Your task to perform on an android device: toggle notification dots Image 0: 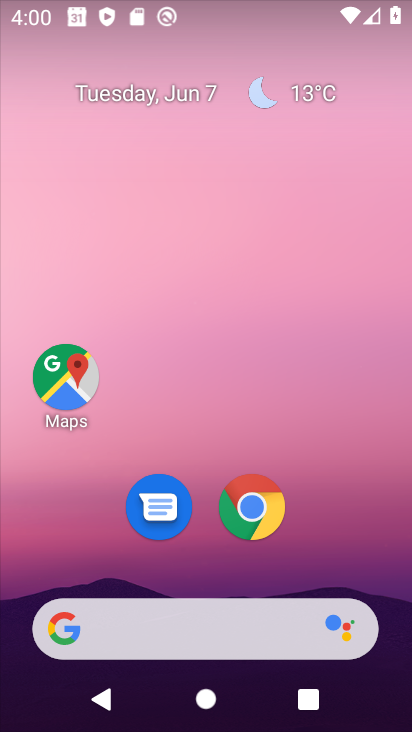
Step 0: drag from (378, 558) to (238, 8)
Your task to perform on an android device: toggle notification dots Image 1: 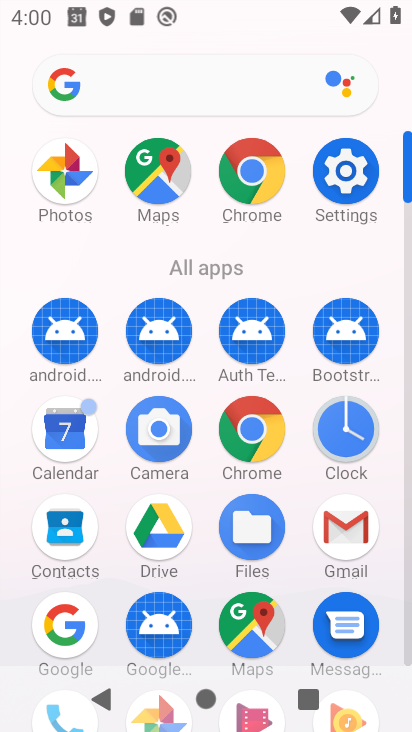
Step 1: click (350, 165)
Your task to perform on an android device: toggle notification dots Image 2: 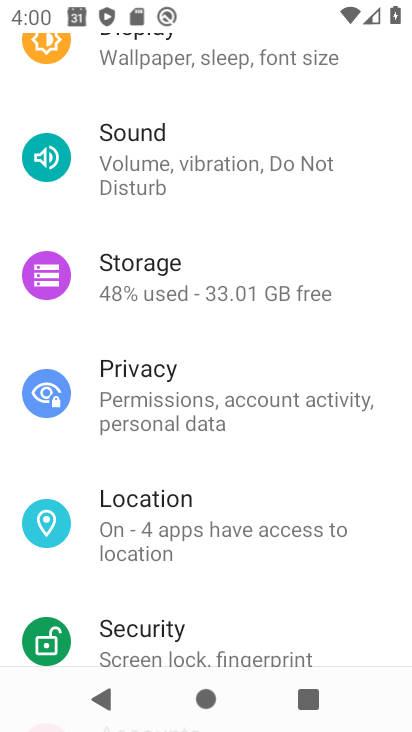
Step 2: drag from (290, 193) to (285, 559)
Your task to perform on an android device: toggle notification dots Image 3: 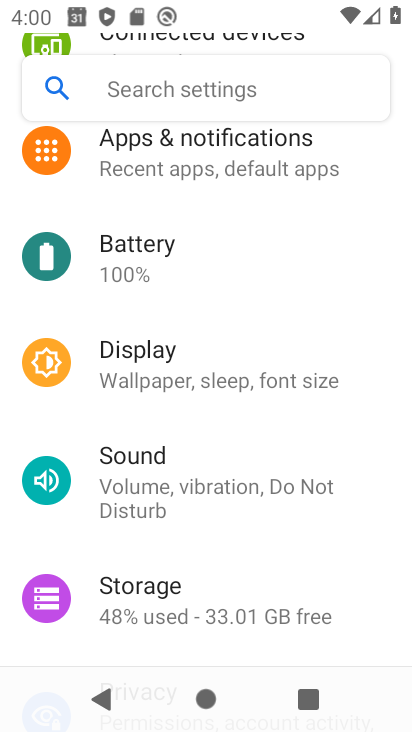
Step 3: drag from (275, 220) to (276, 578)
Your task to perform on an android device: toggle notification dots Image 4: 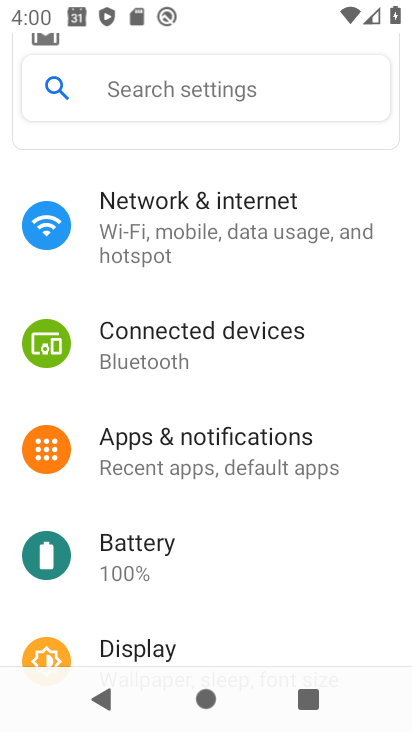
Step 4: click (261, 449)
Your task to perform on an android device: toggle notification dots Image 5: 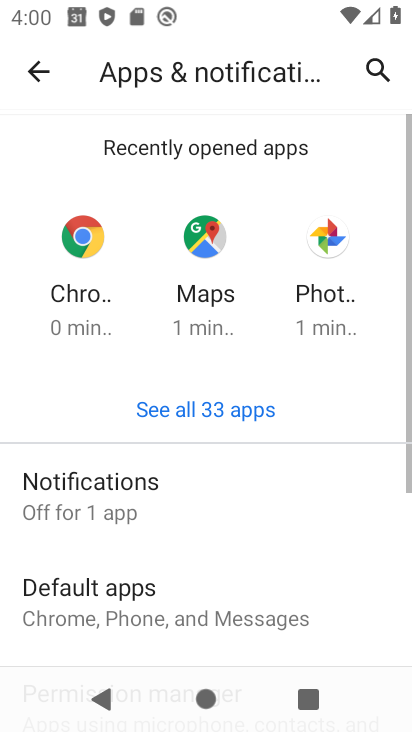
Step 5: click (127, 490)
Your task to perform on an android device: toggle notification dots Image 6: 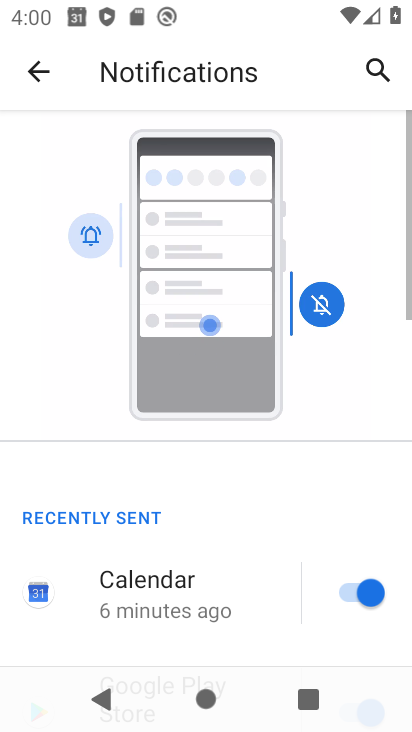
Step 6: drag from (254, 545) to (294, 182)
Your task to perform on an android device: toggle notification dots Image 7: 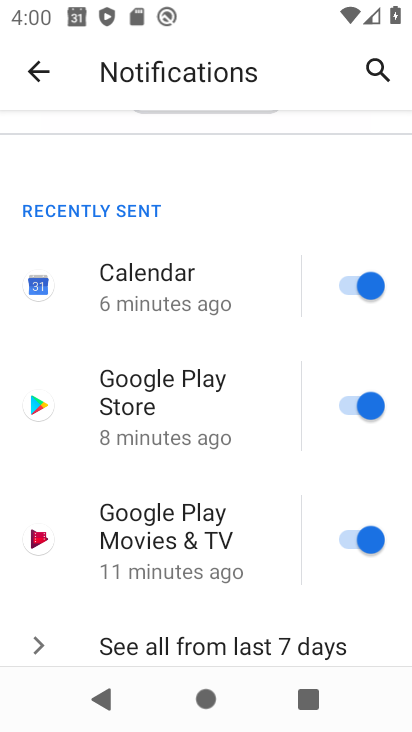
Step 7: drag from (224, 568) to (258, 149)
Your task to perform on an android device: toggle notification dots Image 8: 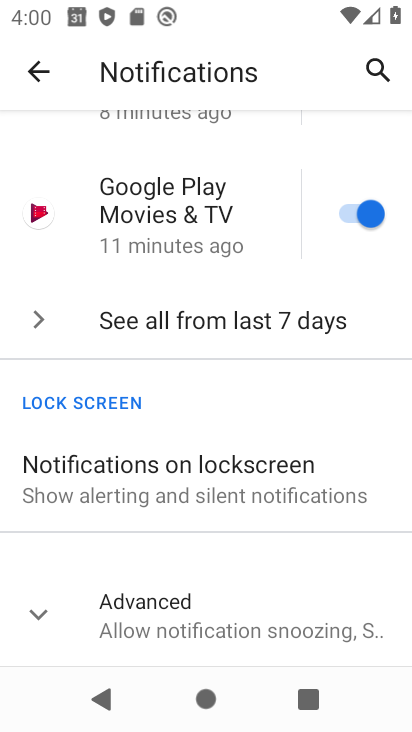
Step 8: drag from (216, 541) to (239, 213)
Your task to perform on an android device: toggle notification dots Image 9: 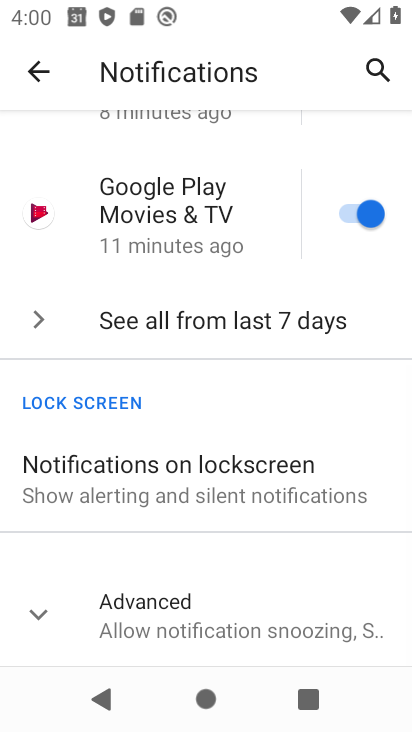
Step 9: click (101, 594)
Your task to perform on an android device: toggle notification dots Image 10: 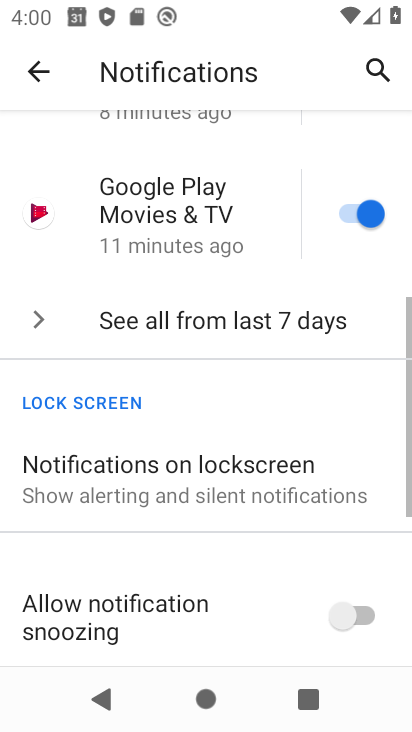
Step 10: drag from (215, 651) to (278, 186)
Your task to perform on an android device: toggle notification dots Image 11: 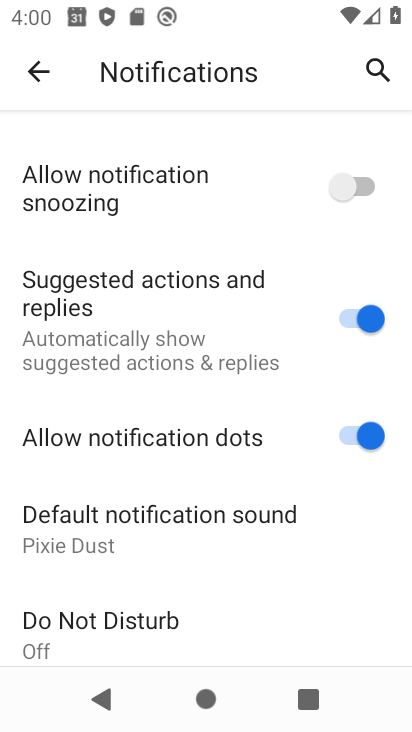
Step 11: click (348, 431)
Your task to perform on an android device: toggle notification dots Image 12: 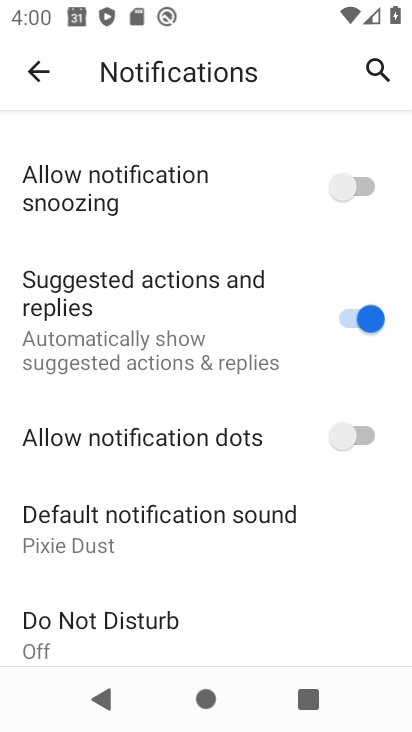
Step 12: task complete